Your task to perform on an android device: Go to Reddit.com Image 0: 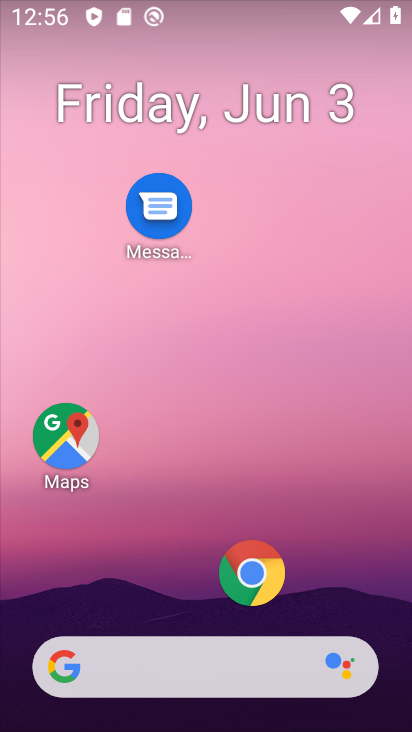
Step 0: click (251, 593)
Your task to perform on an android device: Go to Reddit.com Image 1: 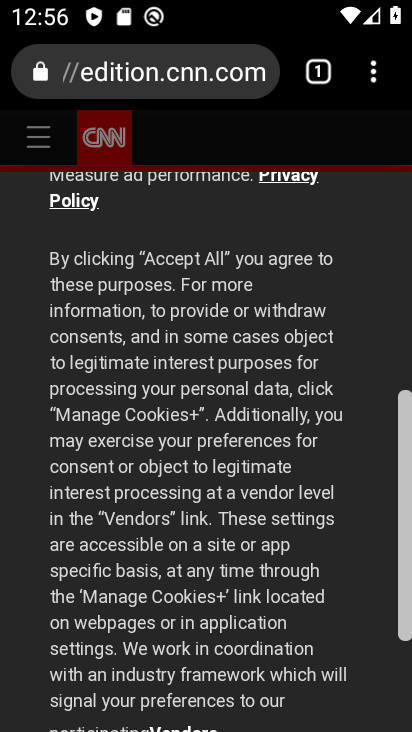
Step 1: click (316, 79)
Your task to perform on an android device: Go to Reddit.com Image 2: 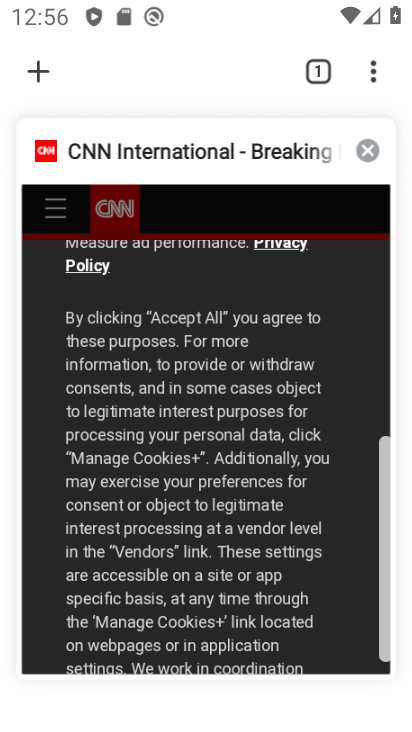
Step 2: click (370, 149)
Your task to perform on an android device: Go to Reddit.com Image 3: 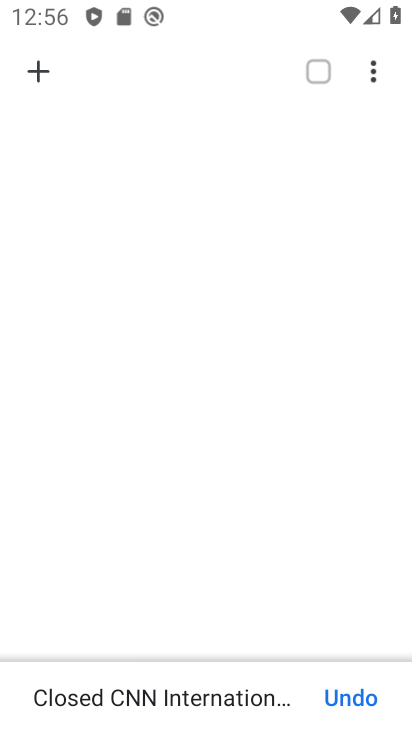
Step 3: click (29, 76)
Your task to perform on an android device: Go to Reddit.com Image 4: 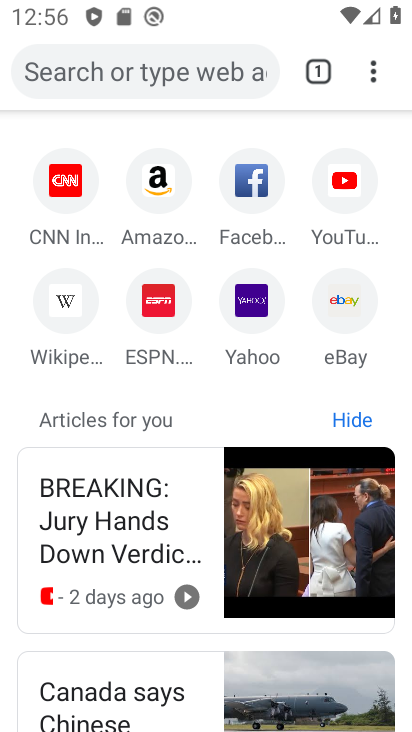
Step 4: type "r"
Your task to perform on an android device: Go to Reddit.com Image 5: 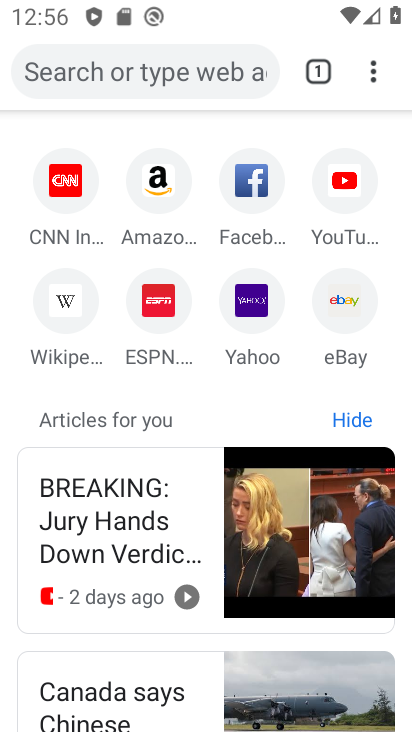
Step 5: click (225, 79)
Your task to perform on an android device: Go to Reddit.com Image 6: 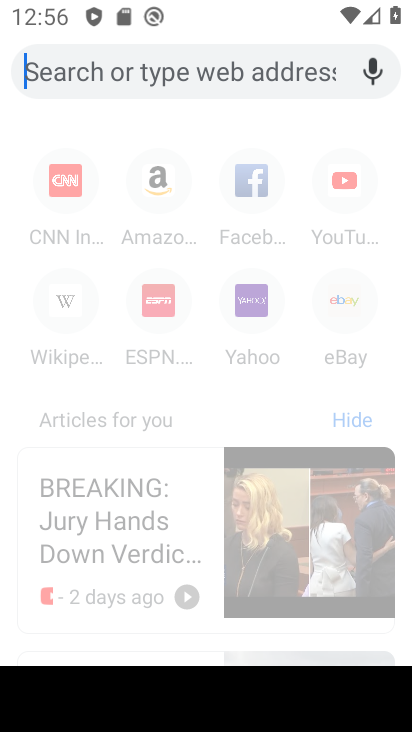
Step 6: type "reddit.com"
Your task to perform on an android device: Go to Reddit.com Image 7: 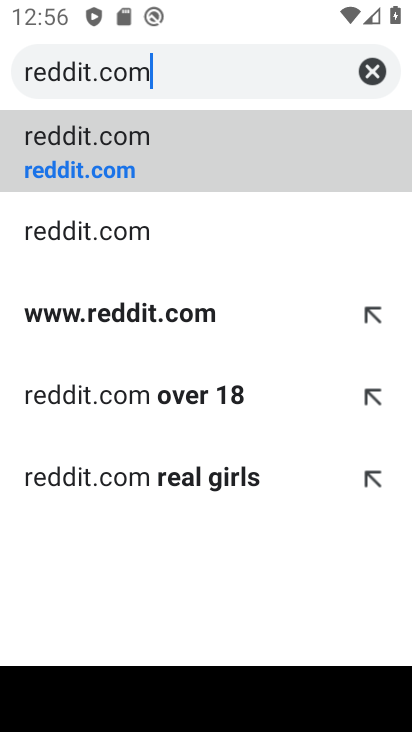
Step 7: click (242, 147)
Your task to perform on an android device: Go to Reddit.com Image 8: 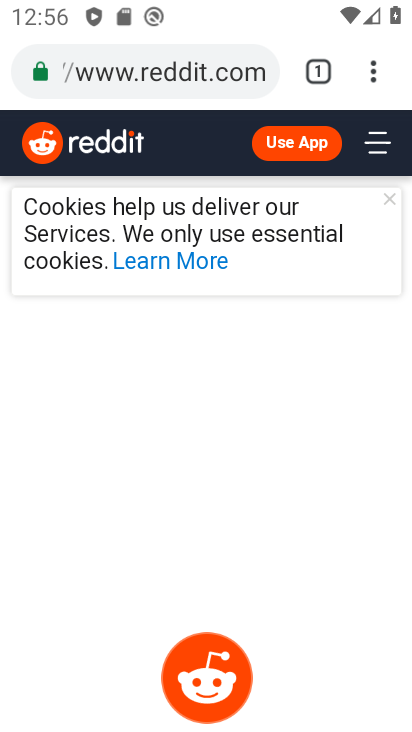
Step 8: click (383, 198)
Your task to perform on an android device: Go to Reddit.com Image 9: 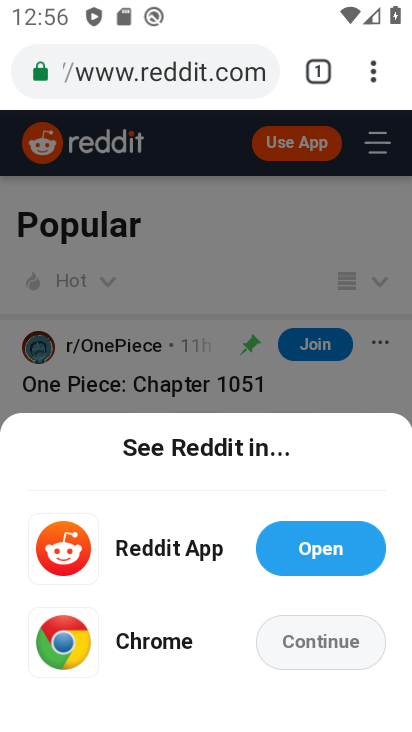
Step 9: click (331, 648)
Your task to perform on an android device: Go to Reddit.com Image 10: 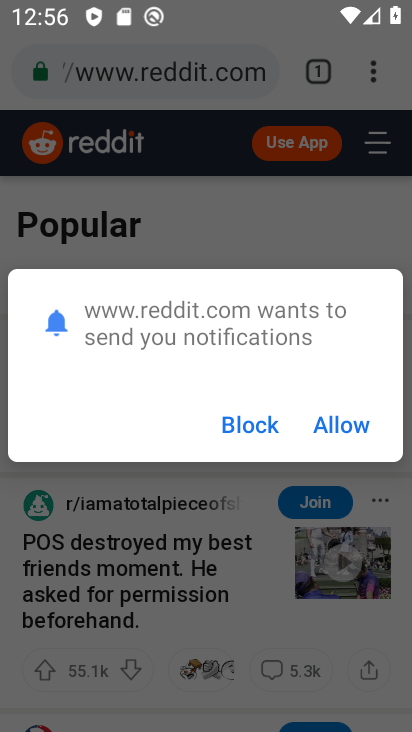
Step 10: click (338, 424)
Your task to perform on an android device: Go to Reddit.com Image 11: 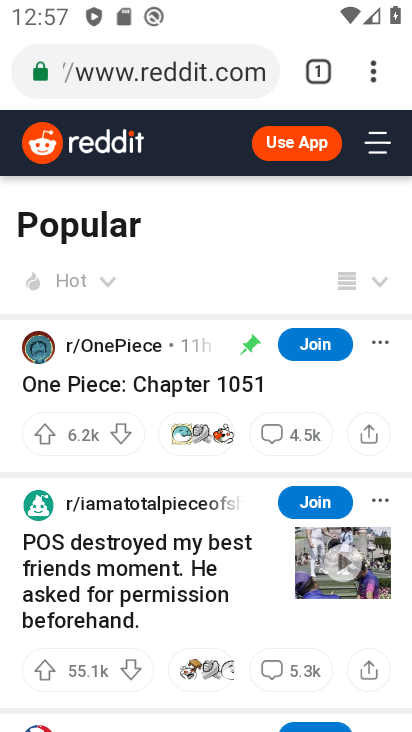
Step 11: task complete